Your task to perform on an android device: Go to Reddit.com Image 0: 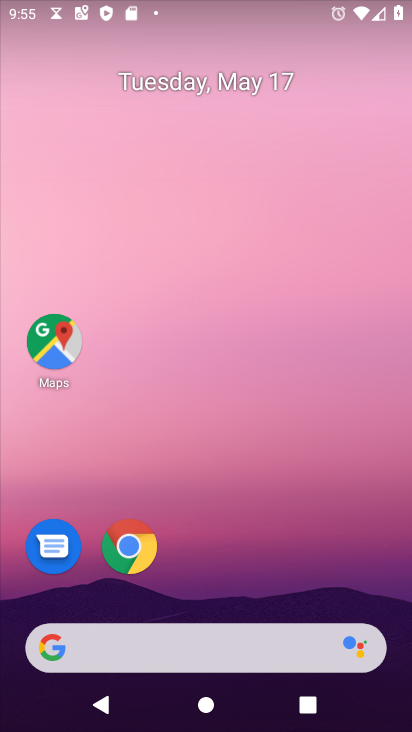
Step 0: click (116, 540)
Your task to perform on an android device: Go to Reddit.com Image 1: 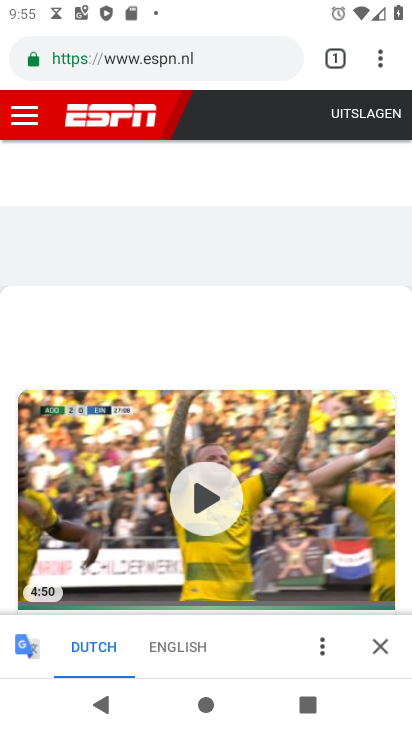
Step 1: click (182, 63)
Your task to perform on an android device: Go to Reddit.com Image 2: 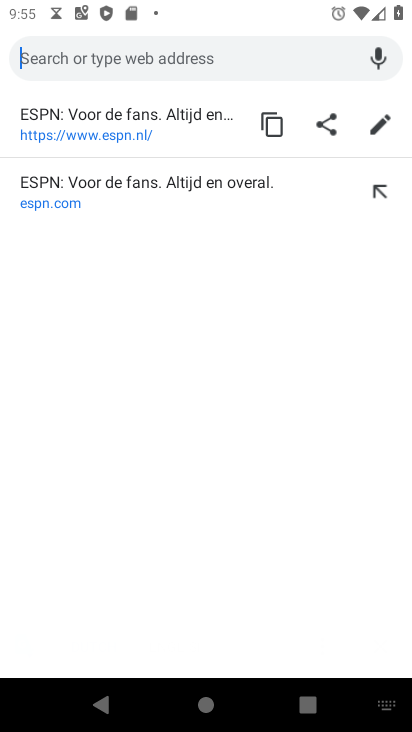
Step 2: type "reddit.com"
Your task to perform on an android device: Go to Reddit.com Image 3: 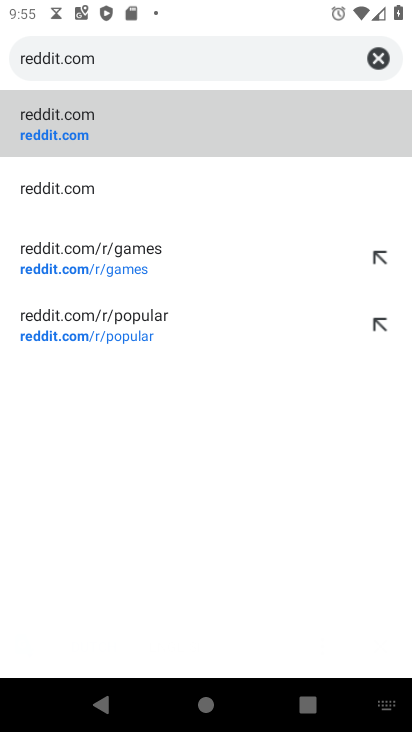
Step 3: click (38, 129)
Your task to perform on an android device: Go to Reddit.com Image 4: 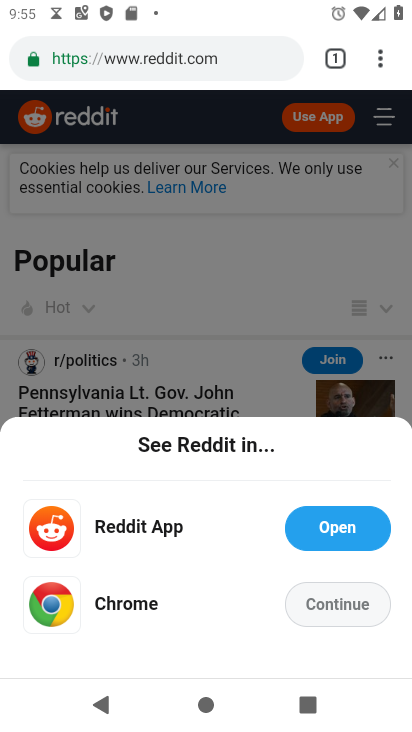
Step 4: task complete